Your task to perform on an android device: What's the weather? Image 0: 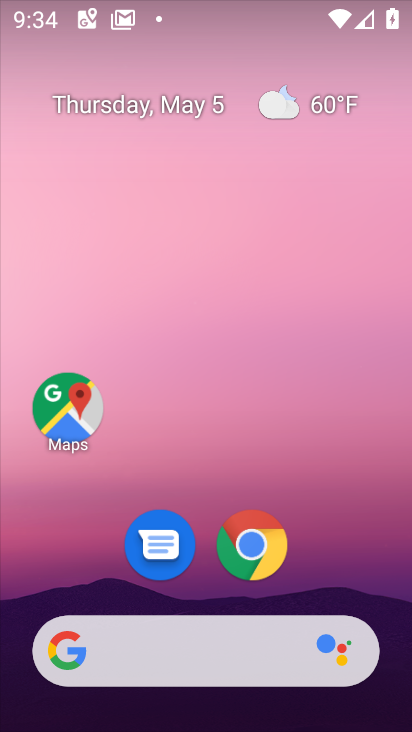
Step 0: click (303, 114)
Your task to perform on an android device: What's the weather? Image 1: 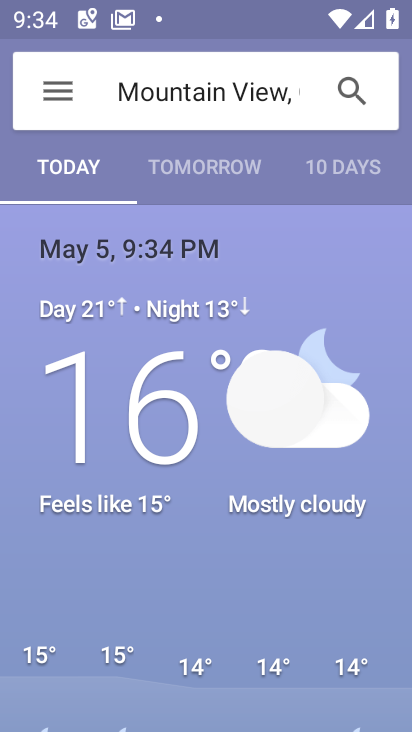
Step 1: task complete